Your task to perform on an android device: turn on notifications settings in the gmail app Image 0: 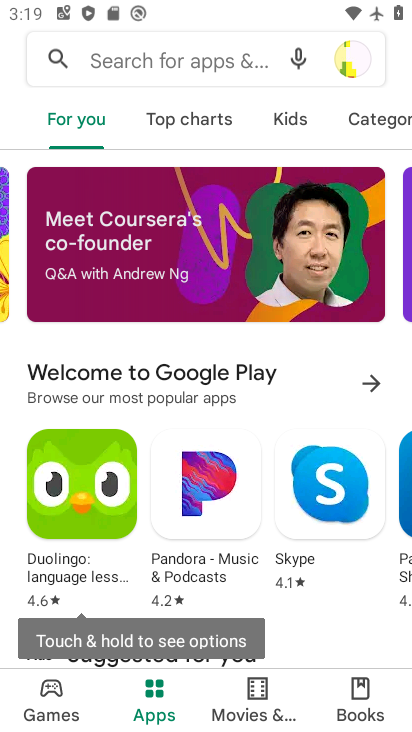
Step 0: press back button
Your task to perform on an android device: turn on notifications settings in the gmail app Image 1: 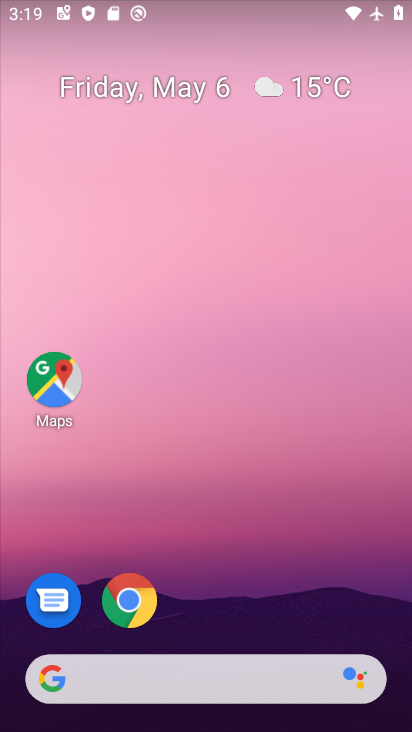
Step 1: drag from (233, 569) to (187, 43)
Your task to perform on an android device: turn on notifications settings in the gmail app Image 2: 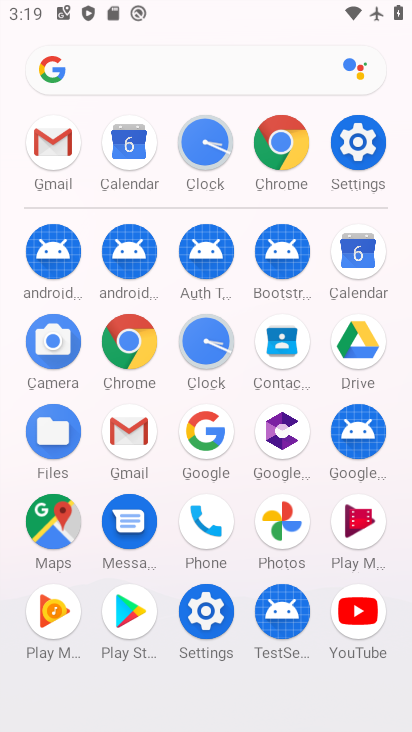
Step 2: drag from (13, 546) to (3, 242)
Your task to perform on an android device: turn on notifications settings in the gmail app Image 3: 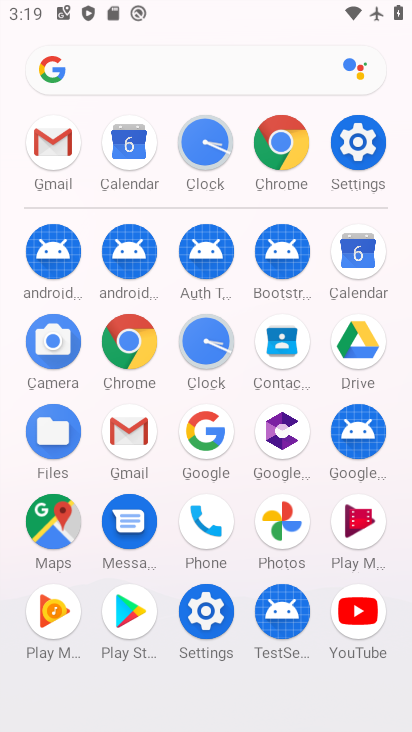
Step 3: click (126, 426)
Your task to perform on an android device: turn on notifications settings in the gmail app Image 4: 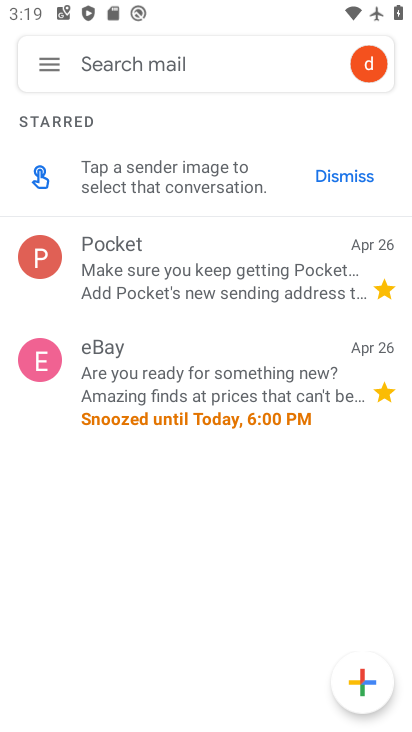
Step 4: click (45, 56)
Your task to perform on an android device: turn on notifications settings in the gmail app Image 5: 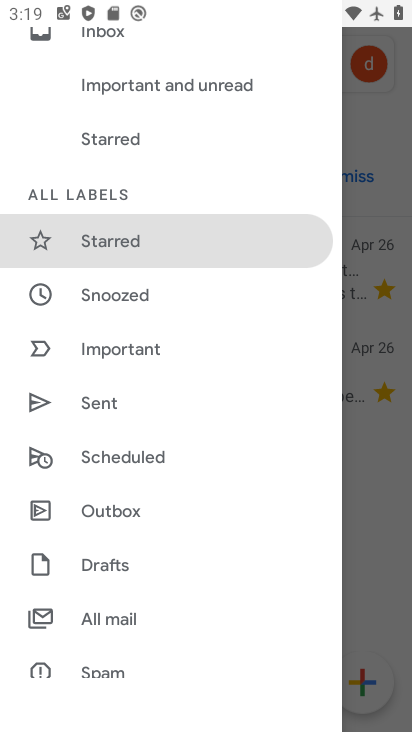
Step 5: drag from (229, 125) to (215, 545)
Your task to perform on an android device: turn on notifications settings in the gmail app Image 6: 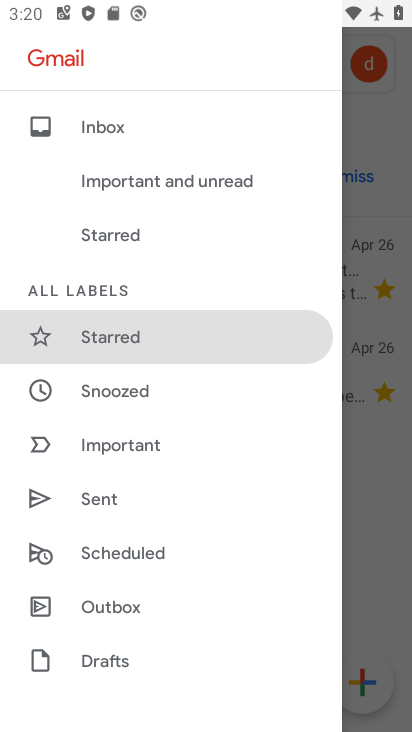
Step 6: drag from (203, 604) to (198, 92)
Your task to perform on an android device: turn on notifications settings in the gmail app Image 7: 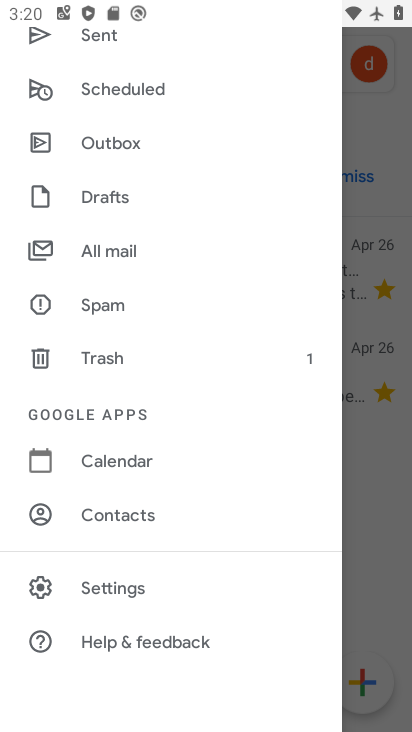
Step 7: click (108, 588)
Your task to perform on an android device: turn on notifications settings in the gmail app Image 8: 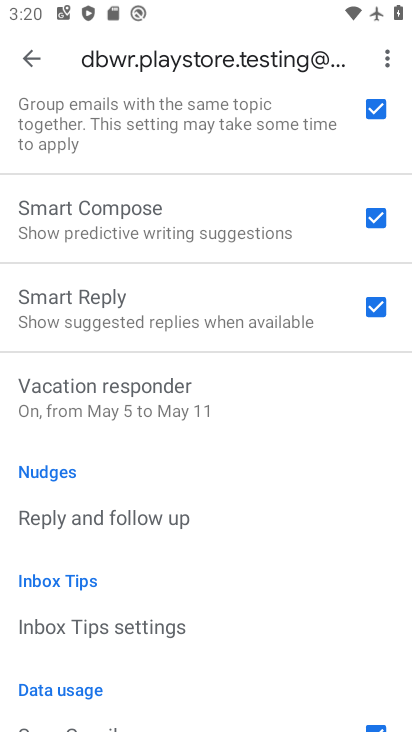
Step 8: drag from (213, 575) to (213, 124)
Your task to perform on an android device: turn on notifications settings in the gmail app Image 9: 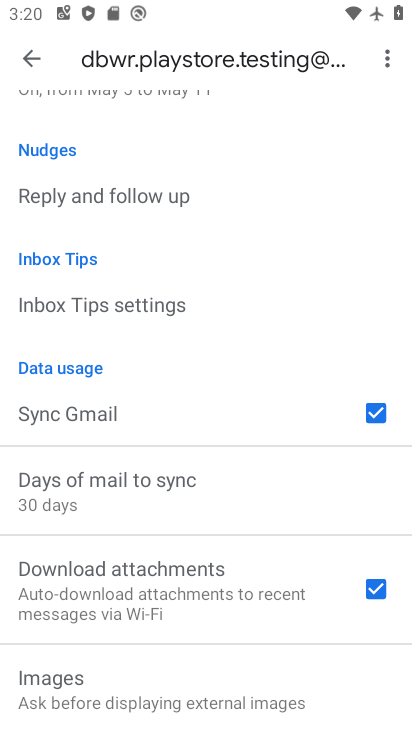
Step 9: drag from (224, 234) to (226, 686)
Your task to perform on an android device: turn on notifications settings in the gmail app Image 10: 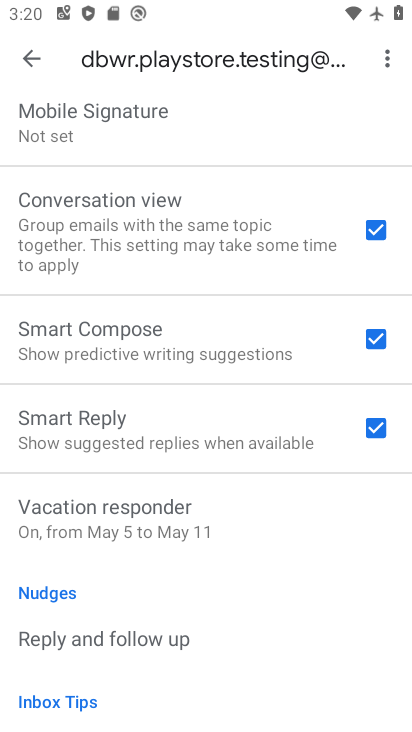
Step 10: drag from (232, 284) to (232, 684)
Your task to perform on an android device: turn on notifications settings in the gmail app Image 11: 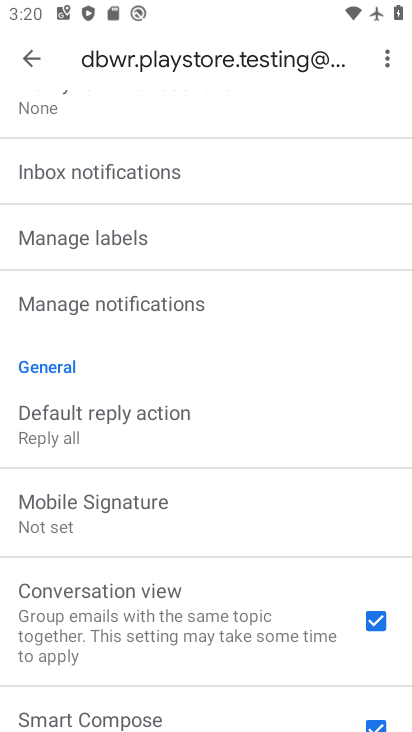
Step 11: click (128, 278)
Your task to perform on an android device: turn on notifications settings in the gmail app Image 12: 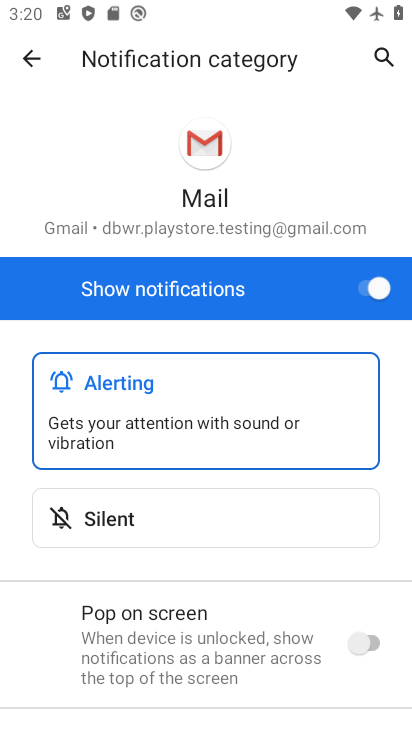
Step 12: task complete